Your task to perform on an android device: Open Reddit.com Image 0: 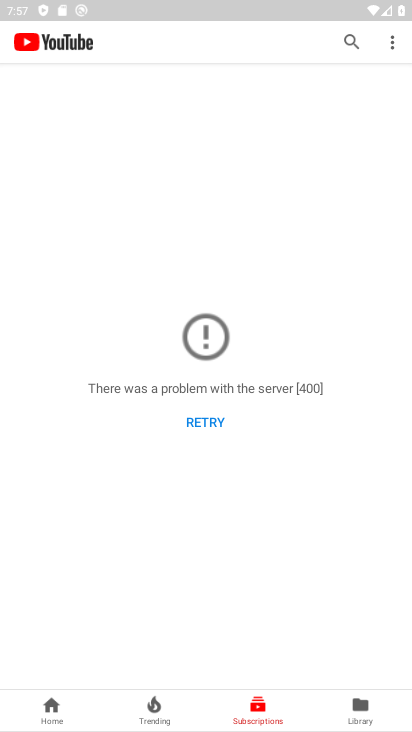
Step 0: press back button
Your task to perform on an android device: Open Reddit.com Image 1: 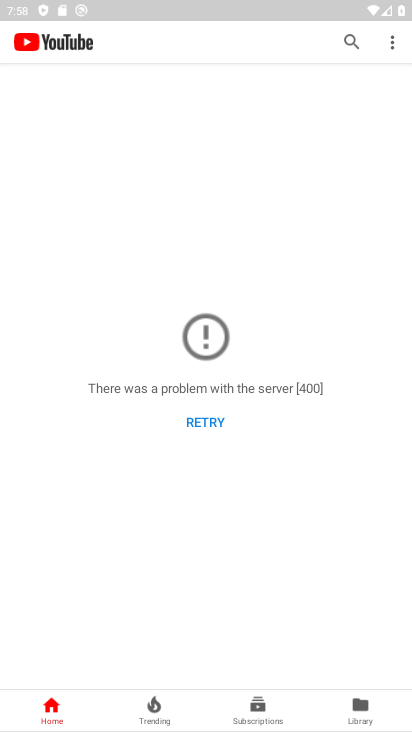
Step 1: press back button
Your task to perform on an android device: Open Reddit.com Image 2: 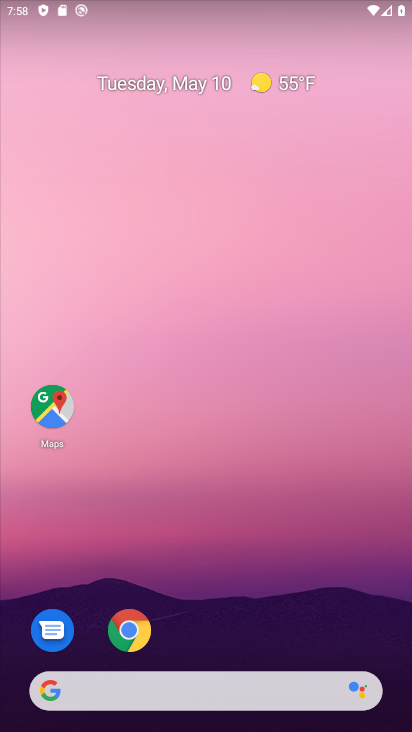
Step 2: click (134, 626)
Your task to perform on an android device: Open Reddit.com Image 3: 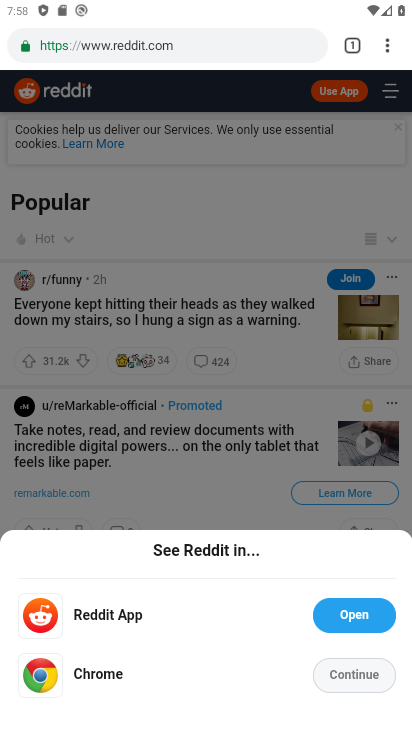
Step 3: task complete